Your task to perform on an android device: toggle data saver in the chrome app Image 0: 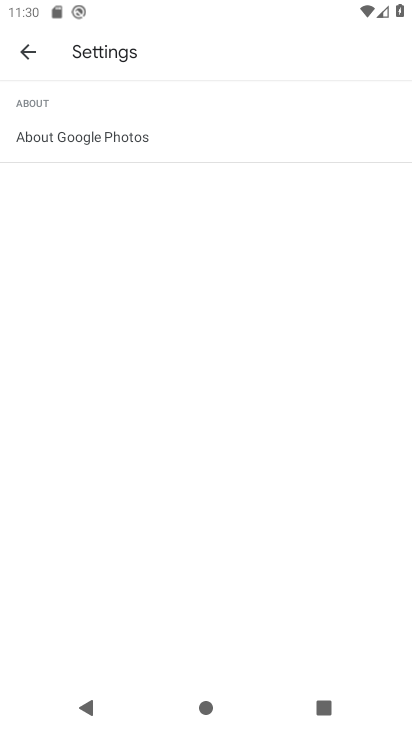
Step 0: press back button
Your task to perform on an android device: toggle data saver in the chrome app Image 1: 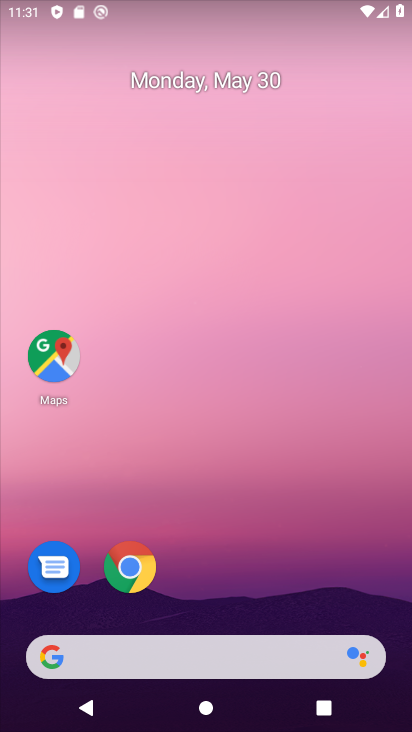
Step 1: drag from (260, 558) to (191, 1)
Your task to perform on an android device: toggle data saver in the chrome app Image 2: 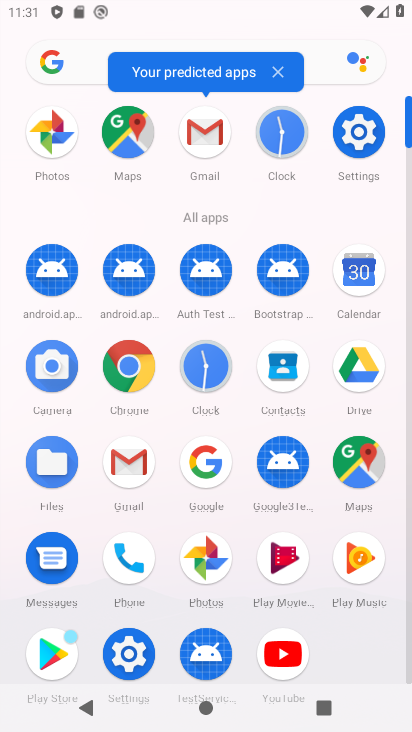
Step 2: click (127, 362)
Your task to perform on an android device: toggle data saver in the chrome app Image 3: 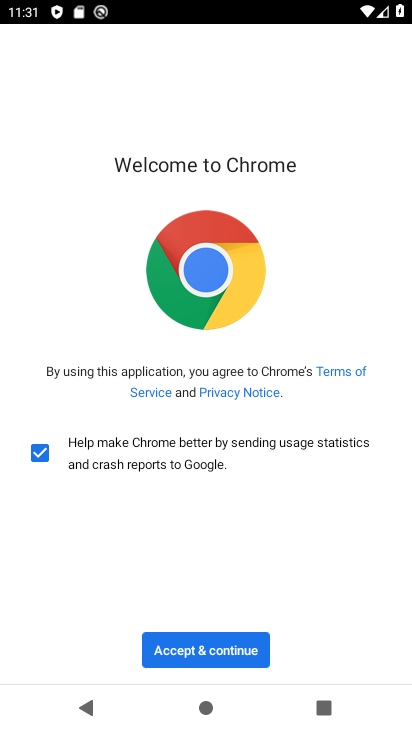
Step 3: click (190, 664)
Your task to perform on an android device: toggle data saver in the chrome app Image 4: 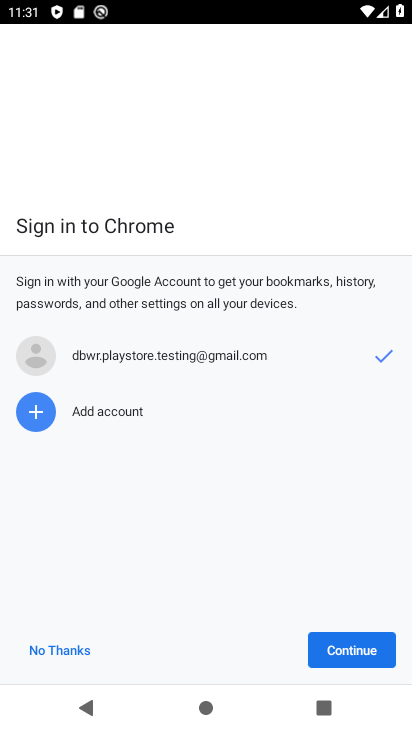
Step 4: click (341, 642)
Your task to perform on an android device: toggle data saver in the chrome app Image 5: 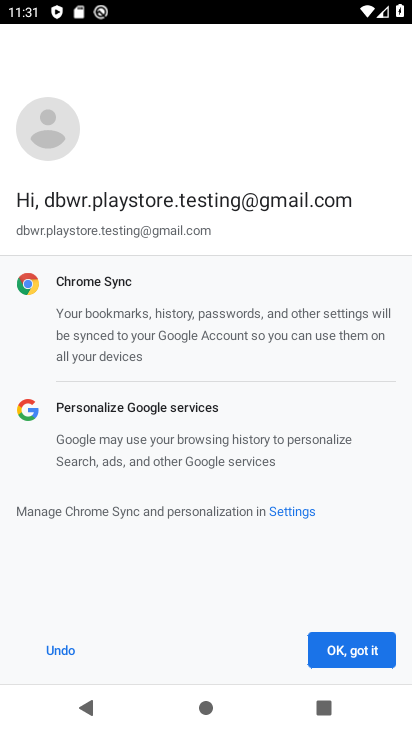
Step 5: click (351, 643)
Your task to perform on an android device: toggle data saver in the chrome app Image 6: 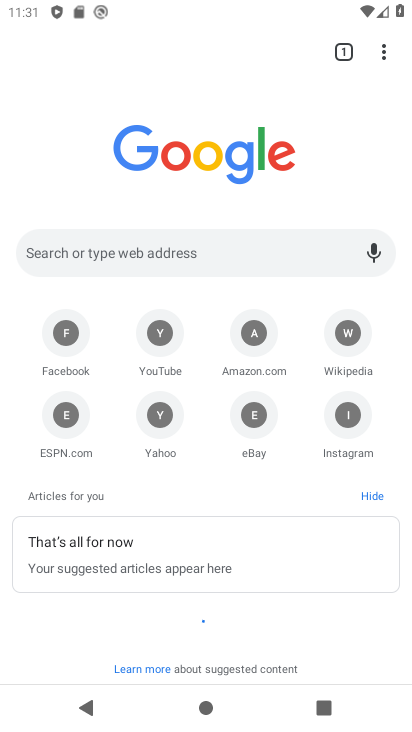
Step 6: drag from (379, 41) to (178, 434)
Your task to perform on an android device: toggle data saver in the chrome app Image 7: 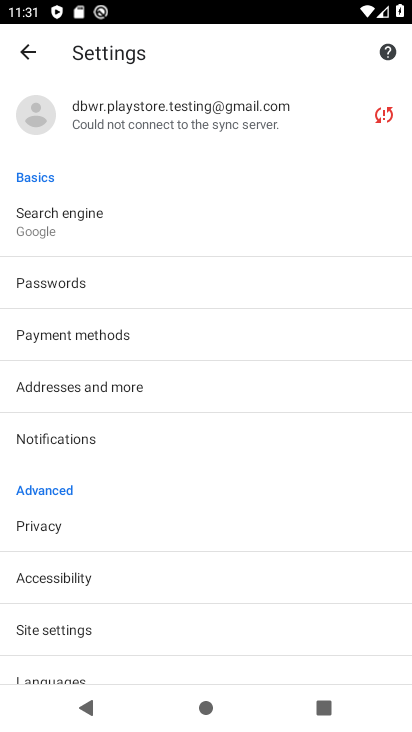
Step 7: drag from (178, 568) to (202, 127)
Your task to perform on an android device: toggle data saver in the chrome app Image 8: 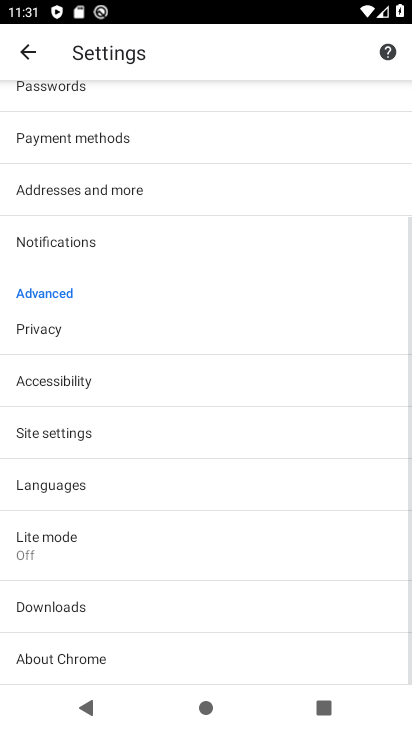
Step 8: click (80, 534)
Your task to perform on an android device: toggle data saver in the chrome app Image 9: 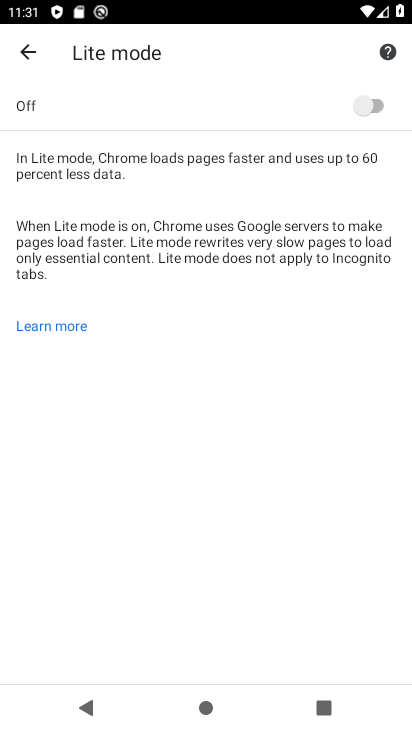
Step 9: click (367, 94)
Your task to perform on an android device: toggle data saver in the chrome app Image 10: 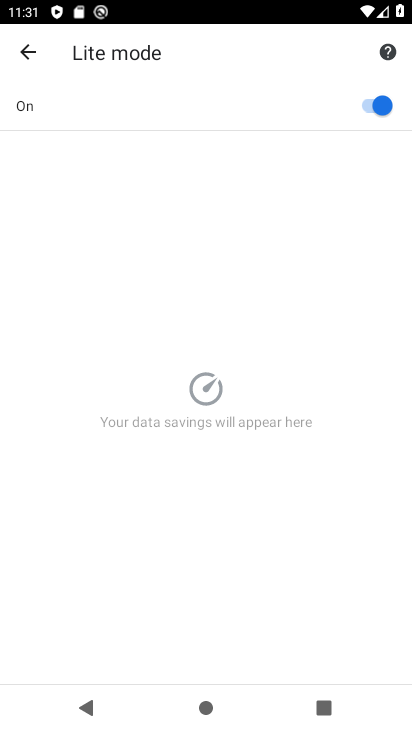
Step 10: task complete